Your task to perform on an android device: Clear the cart on ebay.com. Search for logitech g pro on ebay.com, select the first entry, and add it to the cart. Image 0: 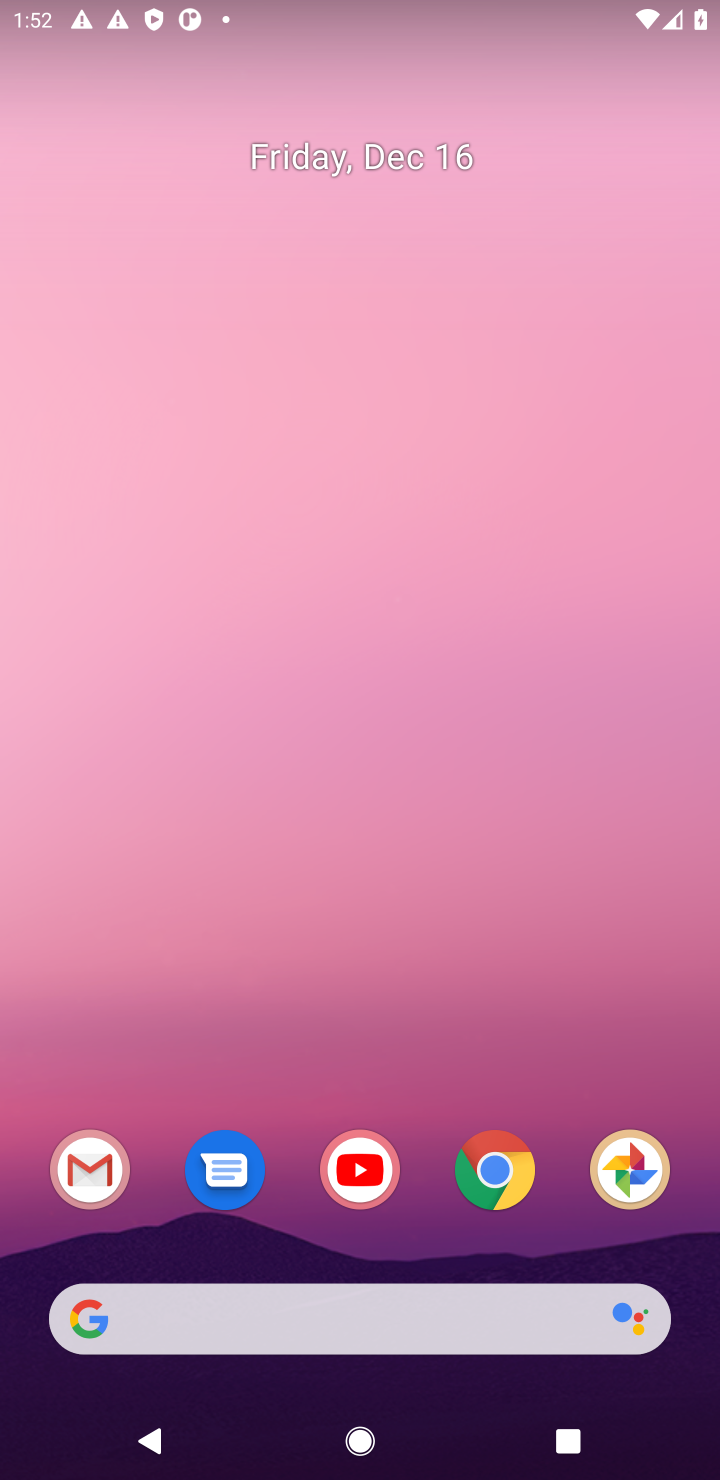
Step 0: click (499, 1163)
Your task to perform on an android device: Clear the cart on ebay.com. Search for logitech g pro on ebay.com, select the first entry, and add it to the cart. Image 1: 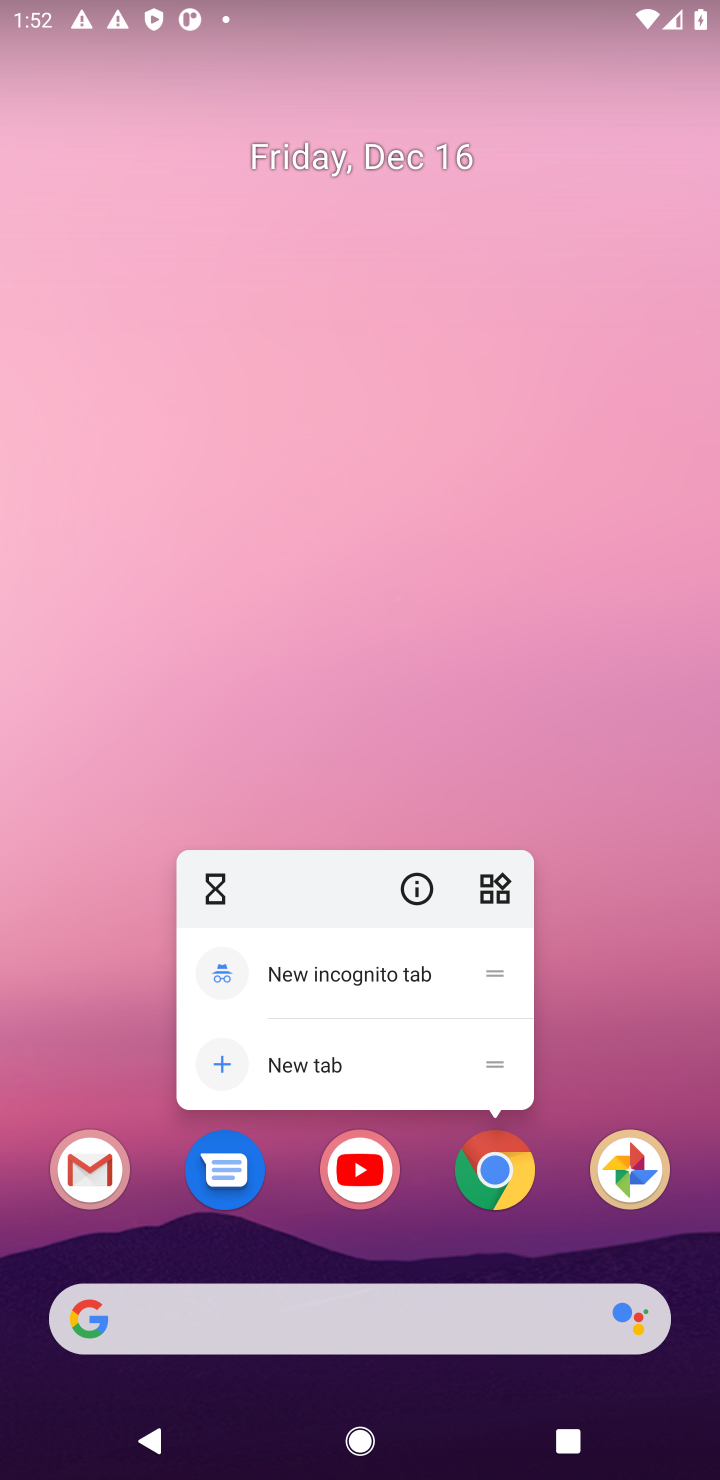
Step 1: click (499, 1181)
Your task to perform on an android device: Clear the cart on ebay.com. Search for logitech g pro on ebay.com, select the first entry, and add it to the cart. Image 2: 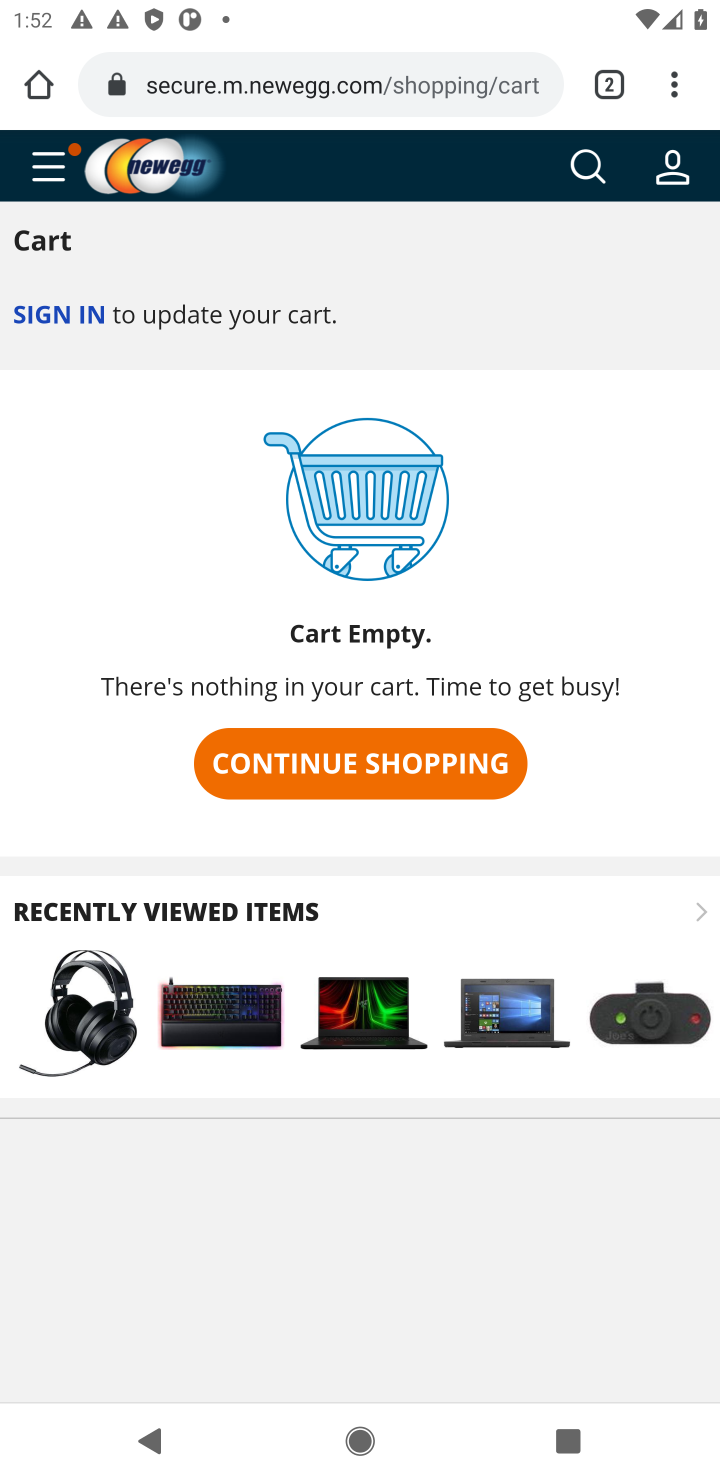
Step 2: click (227, 88)
Your task to perform on an android device: Clear the cart on ebay.com. Search for logitech g pro on ebay.com, select the first entry, and add it to the cart. Image 3: 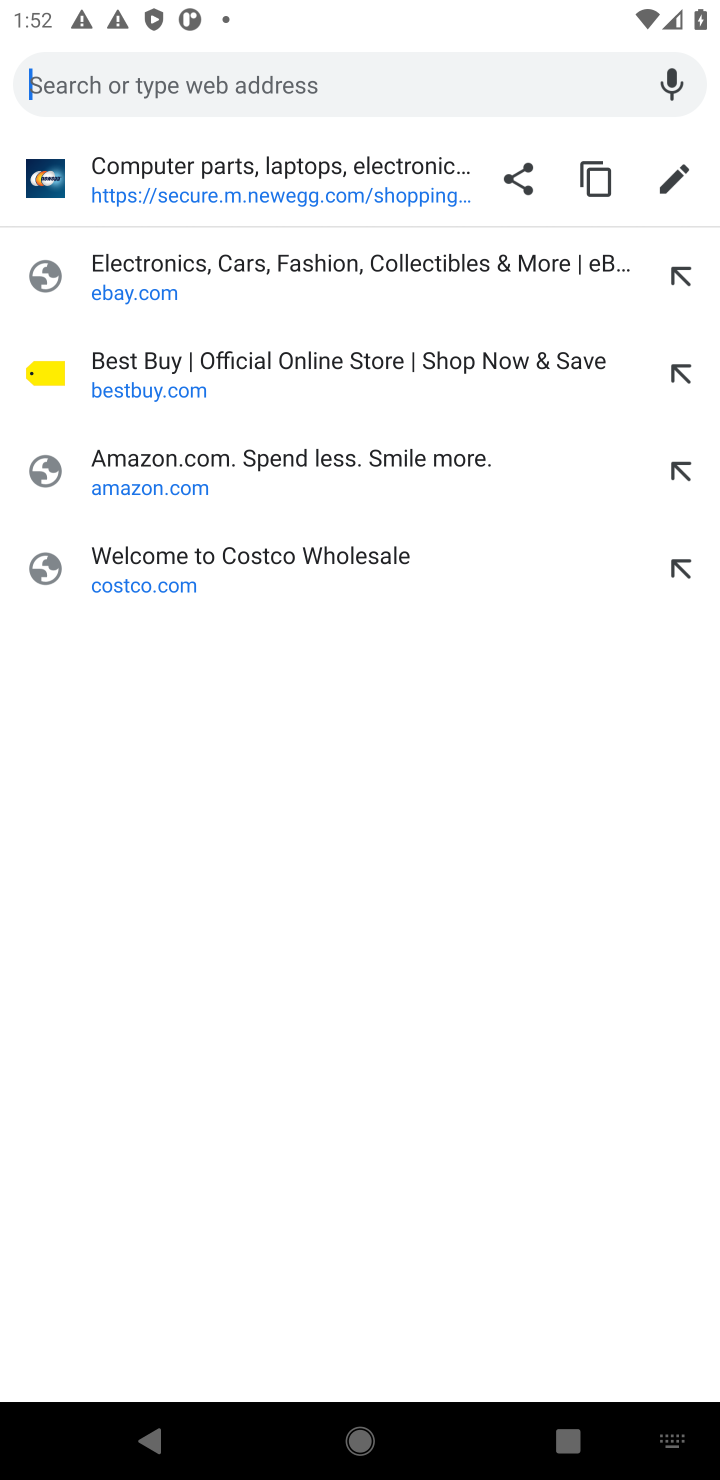
Step 3: click (116, 287)
Your task to perform on an android device: Clear the cart on ebay.com. Search for logitech g pro on ebay.com, select the first entry, and add it to the cart. Image 4: 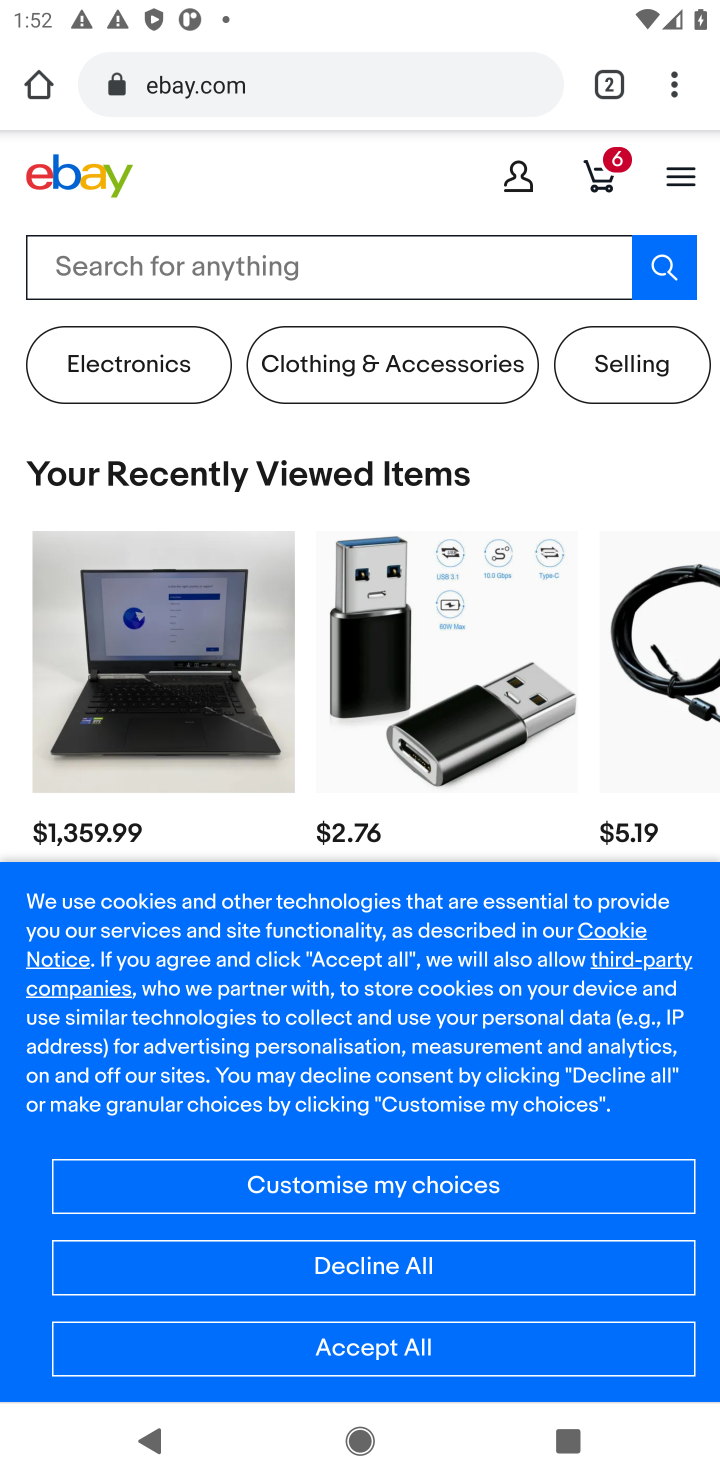
Step 4: click (597, 183)
Your task to perform on an android device: Clear the cart on ebay.com. Search for logitech g pro on ebay.com, select the first entry, and add it to the cart. Image 5: 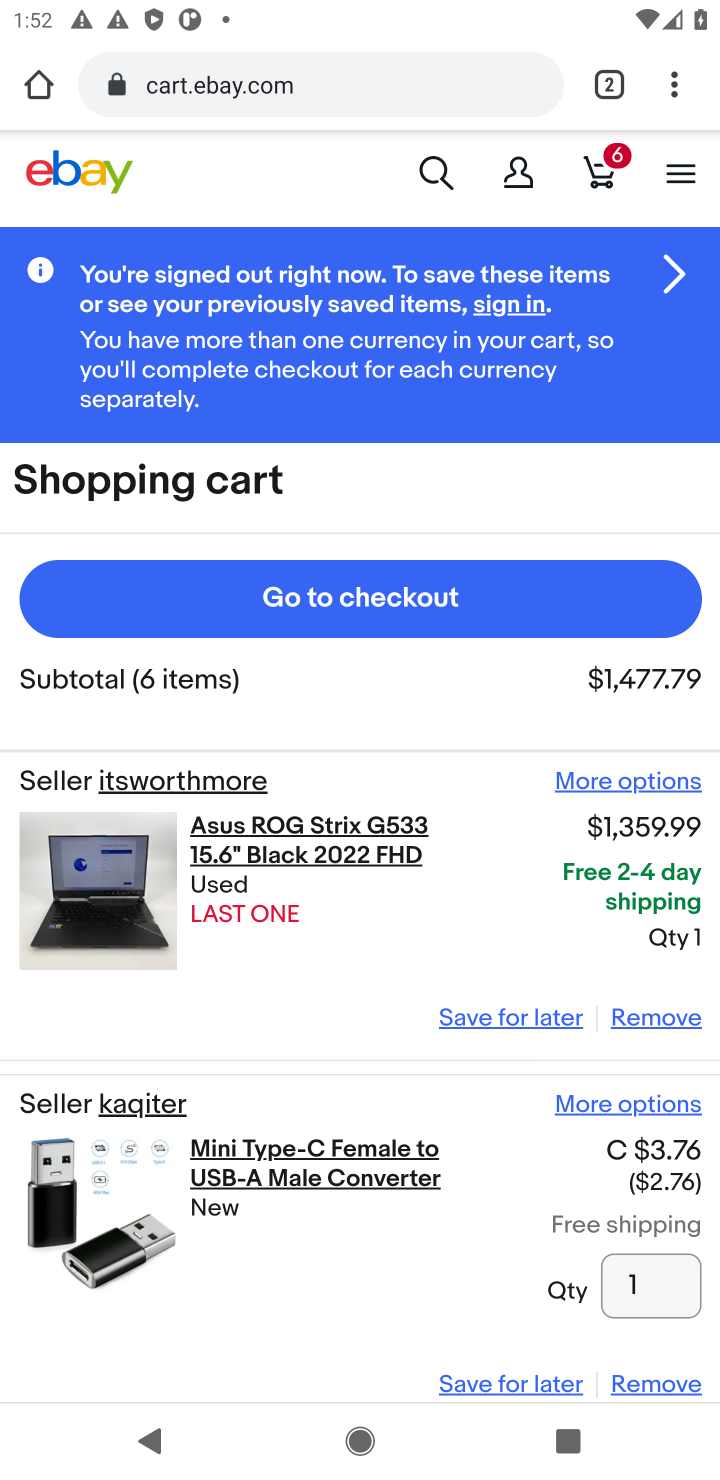
Step 5: click (652, 1020)
Your task to perform on an android device: Clear the cart on ebay.com. Search for logitech g pro on ebay.com, select the first entry, and add it to the cart. Image 6: 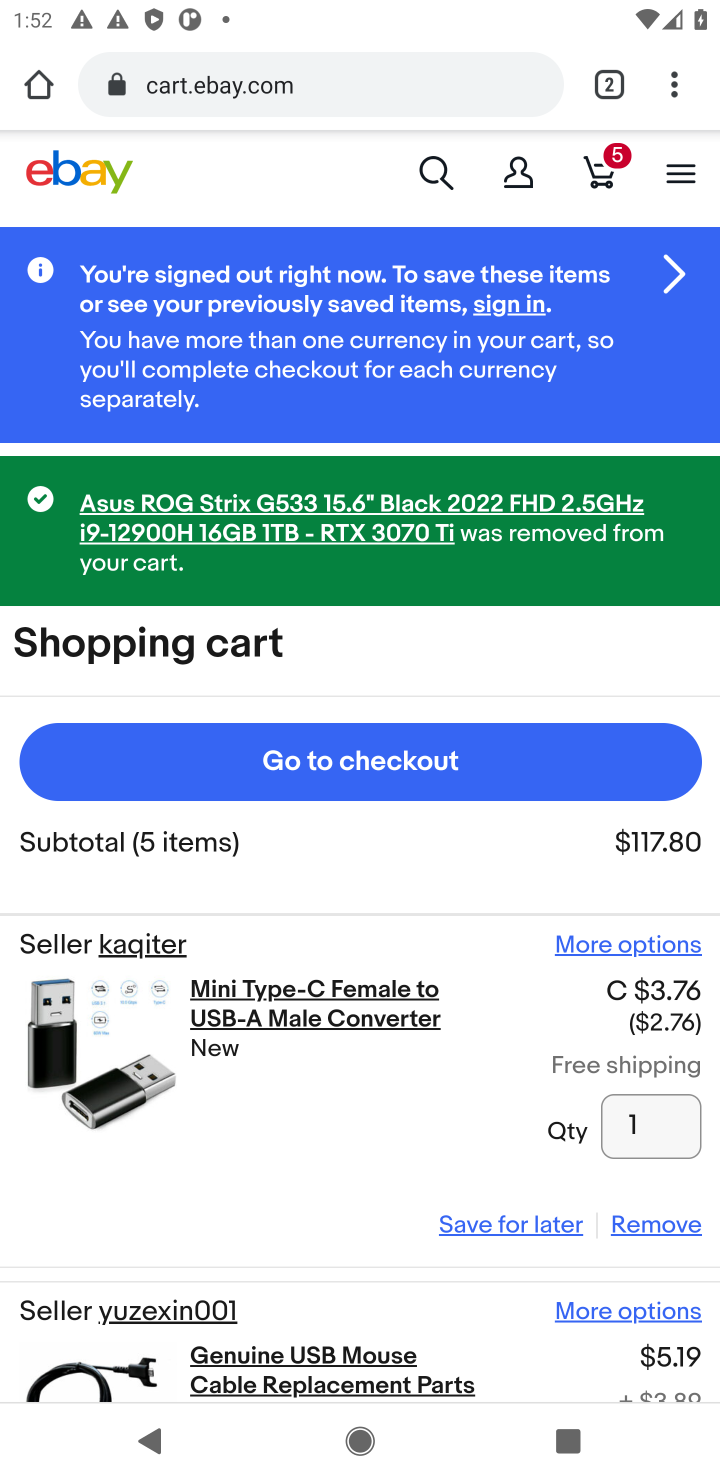
Step 6: click (647, 1223)
Your task to perform on an android device: Clear the cart on ebay.com. Search for logitech g pro on ebay.com, select the first entry, and add it to the cart. Image 7: 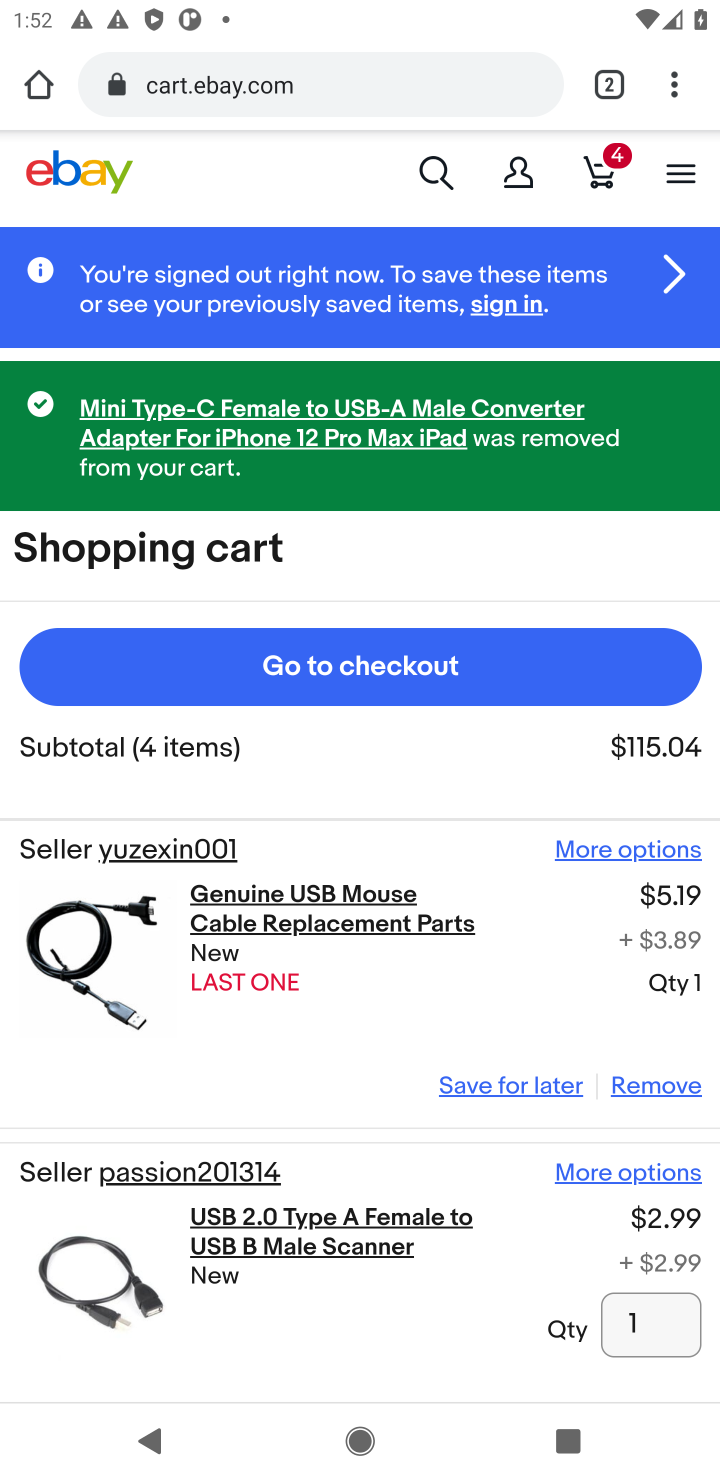
Step 7: click (653, 1091)
Your task to perform on an android device: Clear the cart on ebay.com. Search for logitech g pro on ebay.com, select the first entry, and add it to the cart. Image 8: 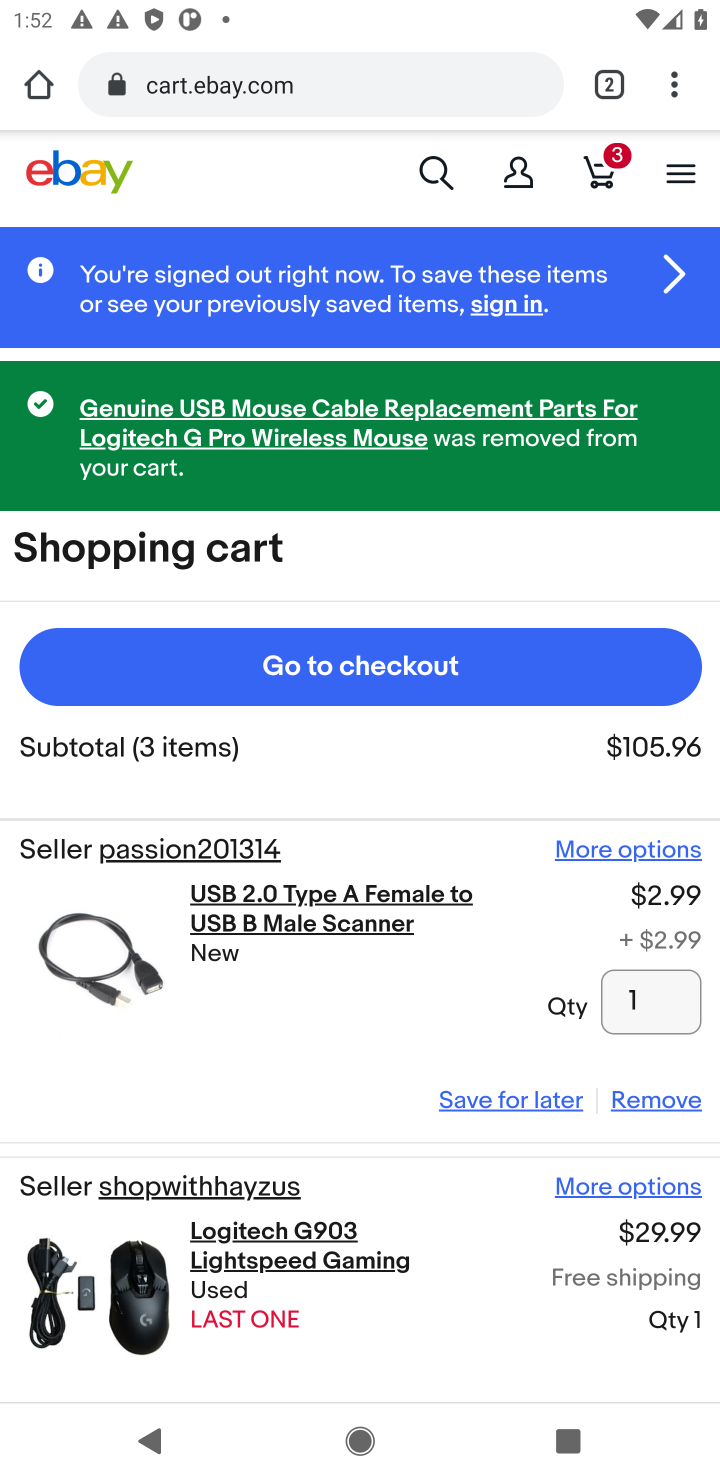
Step 8: click (650, 1098)
Your task to perform on an android device: Clear the cart on ebay.com. Search for logitech g pro on ebay.com, select the first entry, and add it to the cart. Image 9: 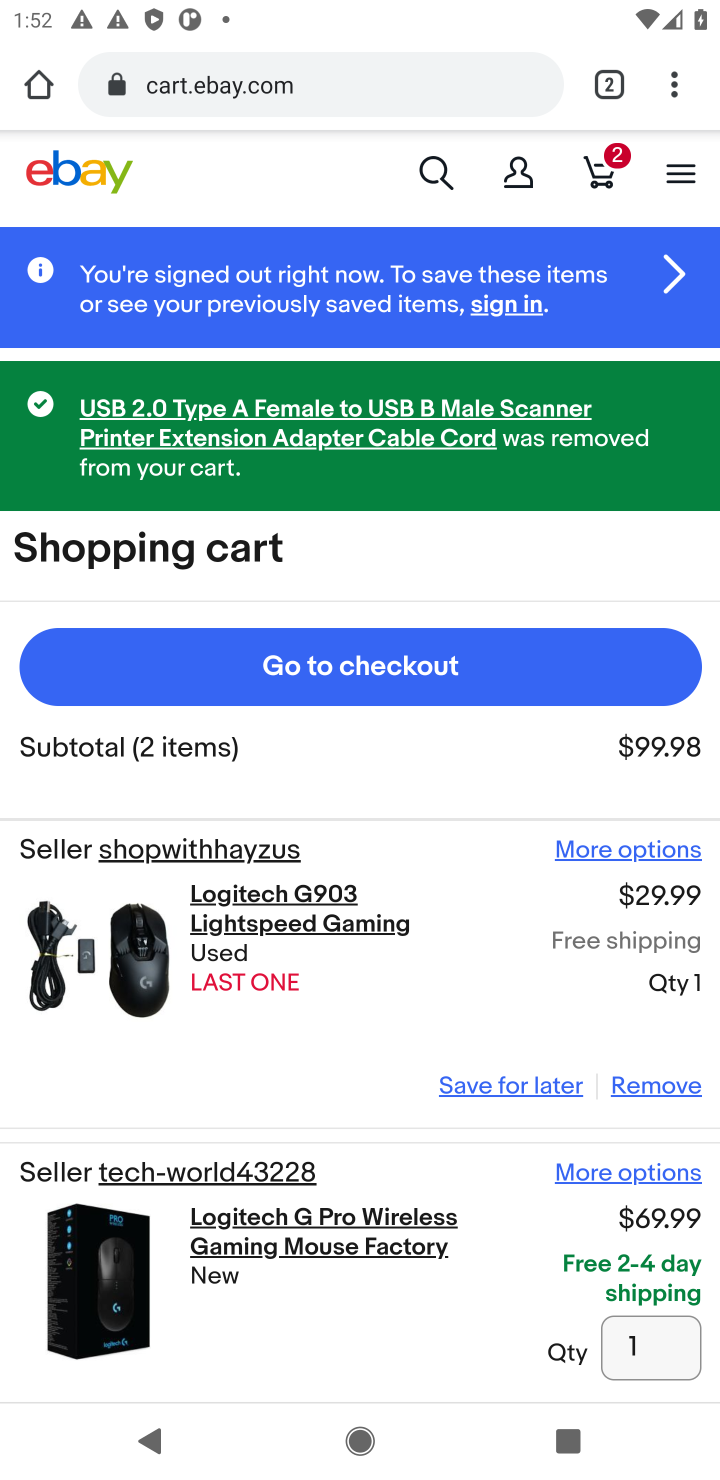
Step 9: click (656, 1092)
Your task to perform on an android device: Clear the cart on ebay.com. Search for logitech g pro on ebay.com, select the first entry, and add it to the cart. Image 10: 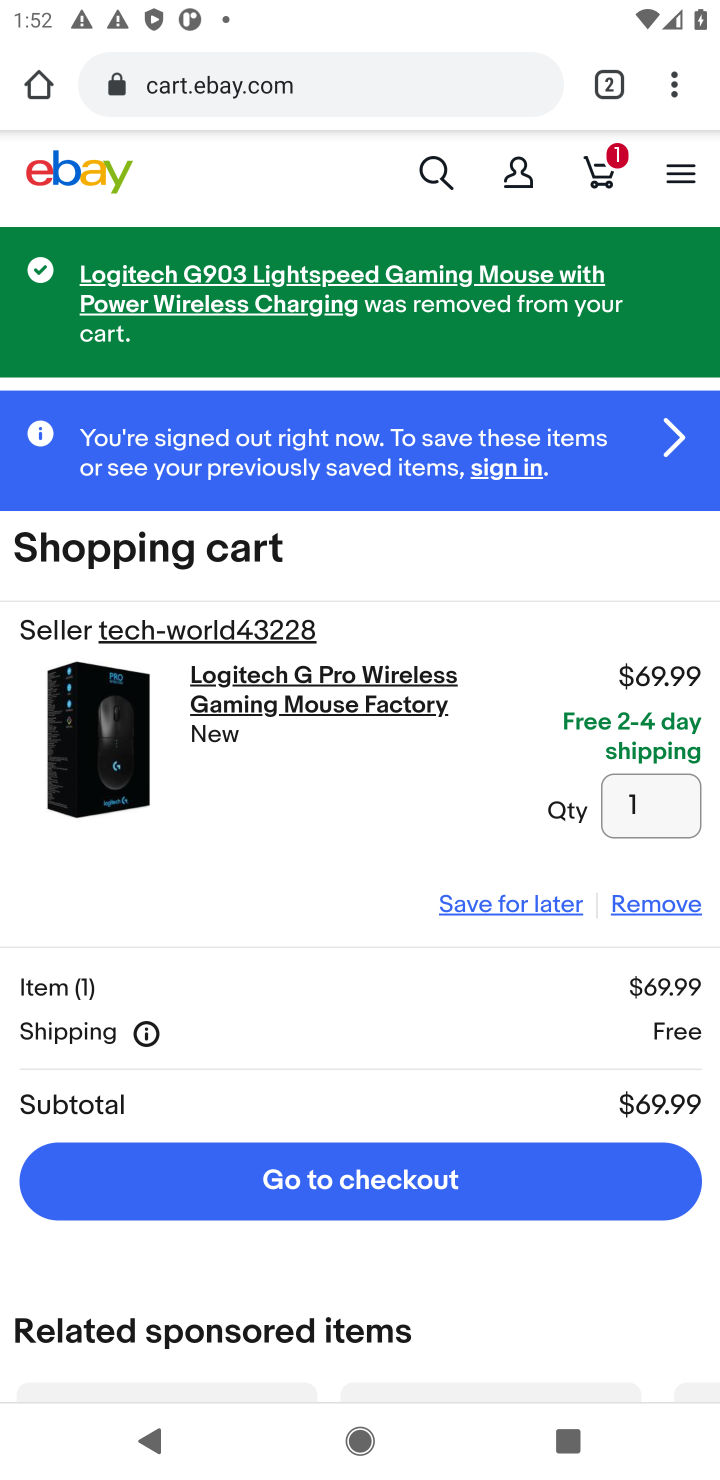
Step 10: click (645, 910)
Your task to perform on an android device: Clear the cart on ebay.com. Search for logitech g pro on ebay.com, select the first entry, and add it to the cart. Image 11: 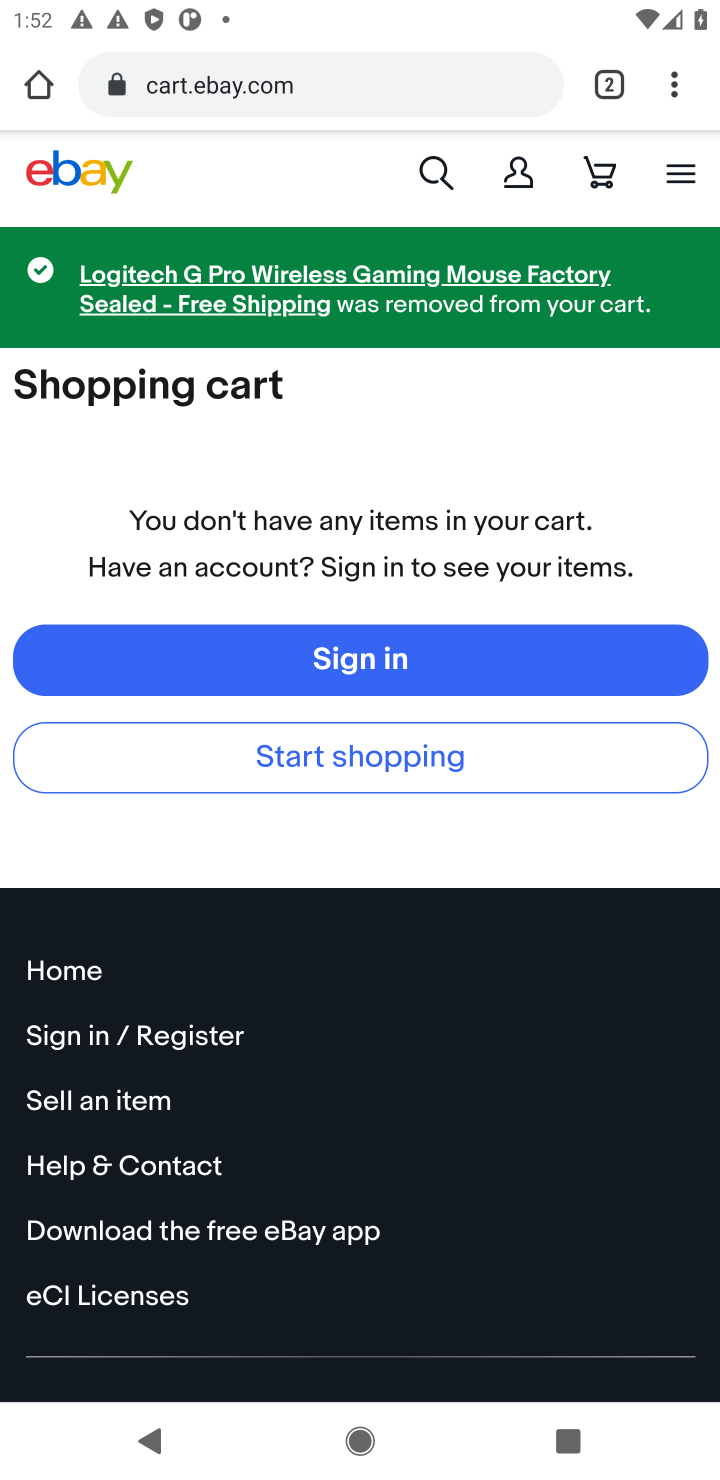
Step 11: click (437, 167)
Your task to perform on an android device: Clear the cart on ebay.com. Search for logitech g pro on ebay.com, select the first entry, and add it to the cart. Image 12: 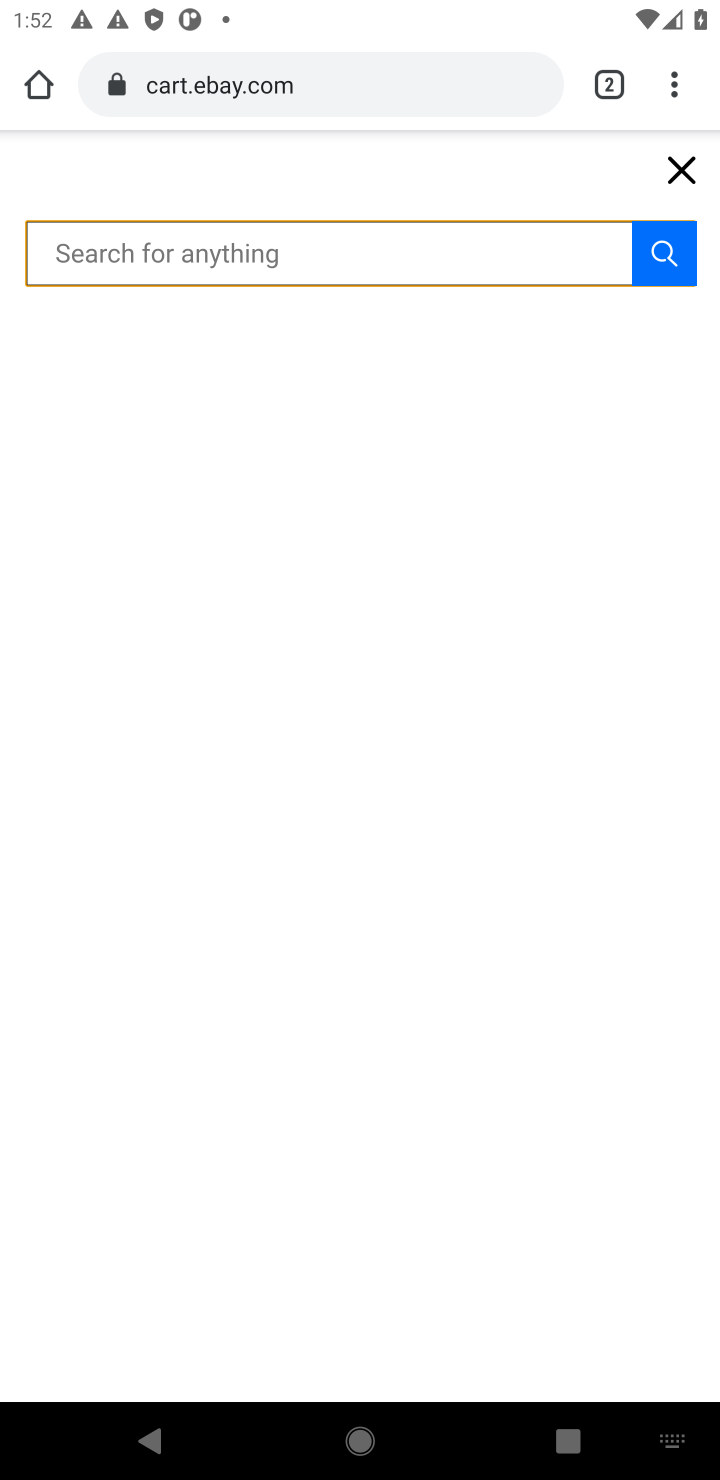
Step 12: type "logitech g pro"
Your task to perform on an android device: Clear the cart on ebay.com. Search for logitech g pro on ebay.com, select the first entry, and add it to the cart. Image 13: 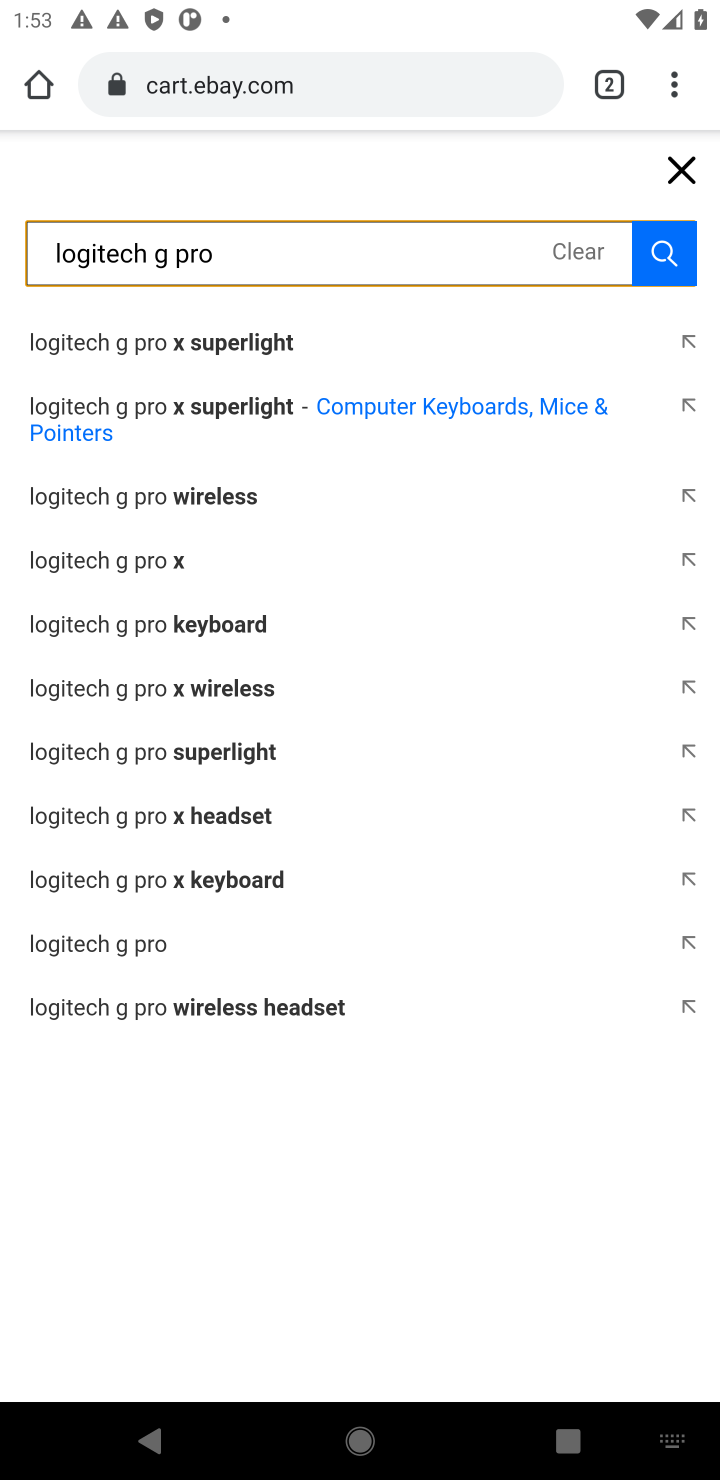
Step 13: click (89, 945)
Your task to perform on an android device: Clear the cart on ebay.com. Search for logitech g pro on ebay.com, select the first entry, and add it to the cart. Image 14: 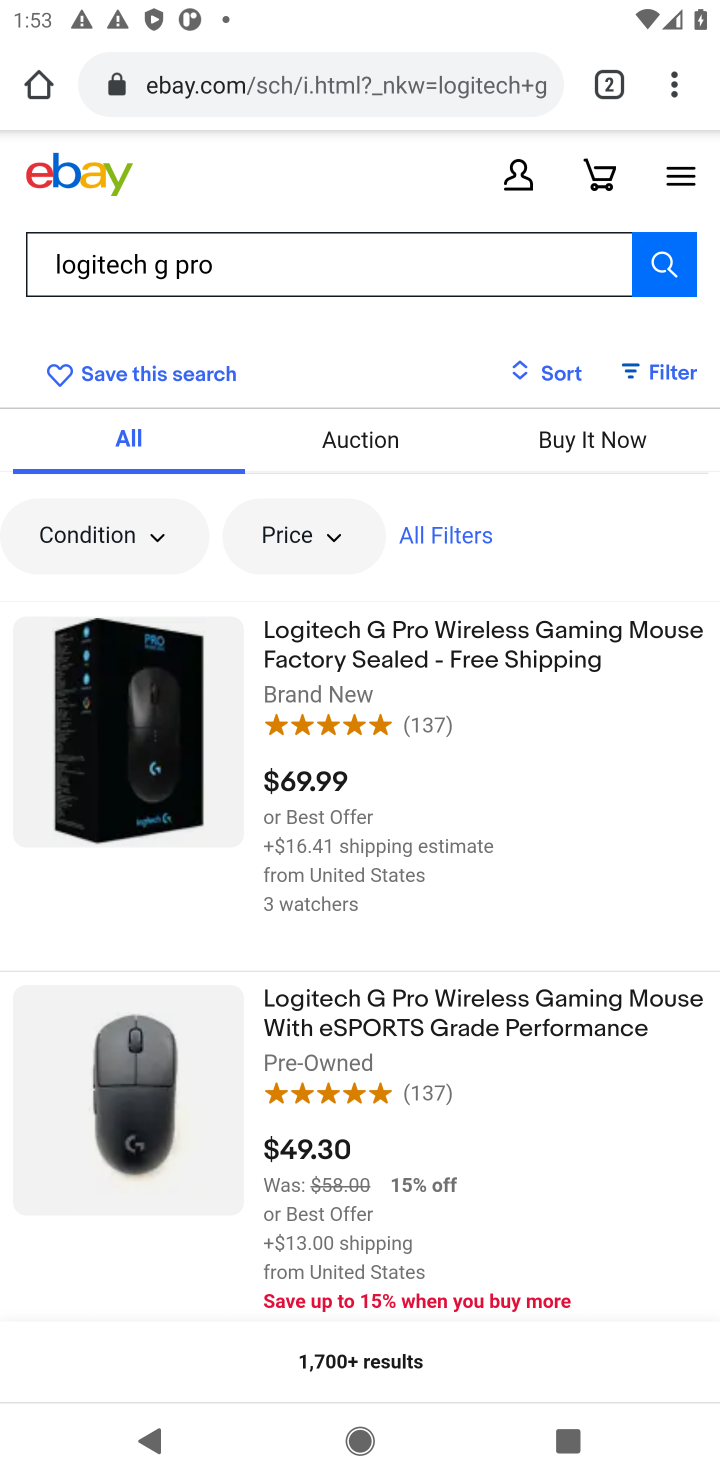
Step 14: click (309, 646)
Your task to perform on an android device: Clear the cart on ebay.com. Search for logitech g pro on ebay.com, select the first entry, and add it to the cart. Image 15: 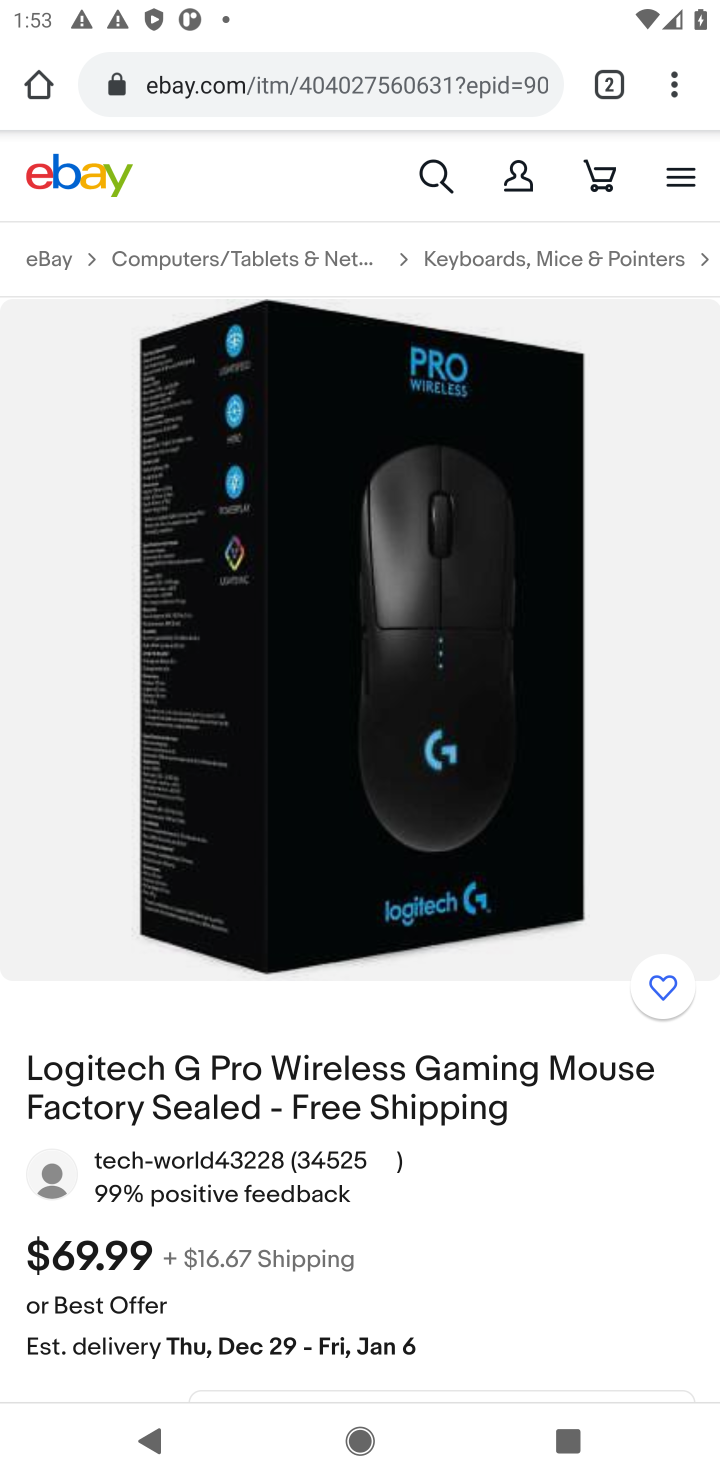
Step 15: drag from (345, 1029) to (334, 602)
Your task to perform on an android device: Clear the cart on ebay.com. Search for logitech g pro on ebay.com, select the first entry, and add it to the cart. Image 16: 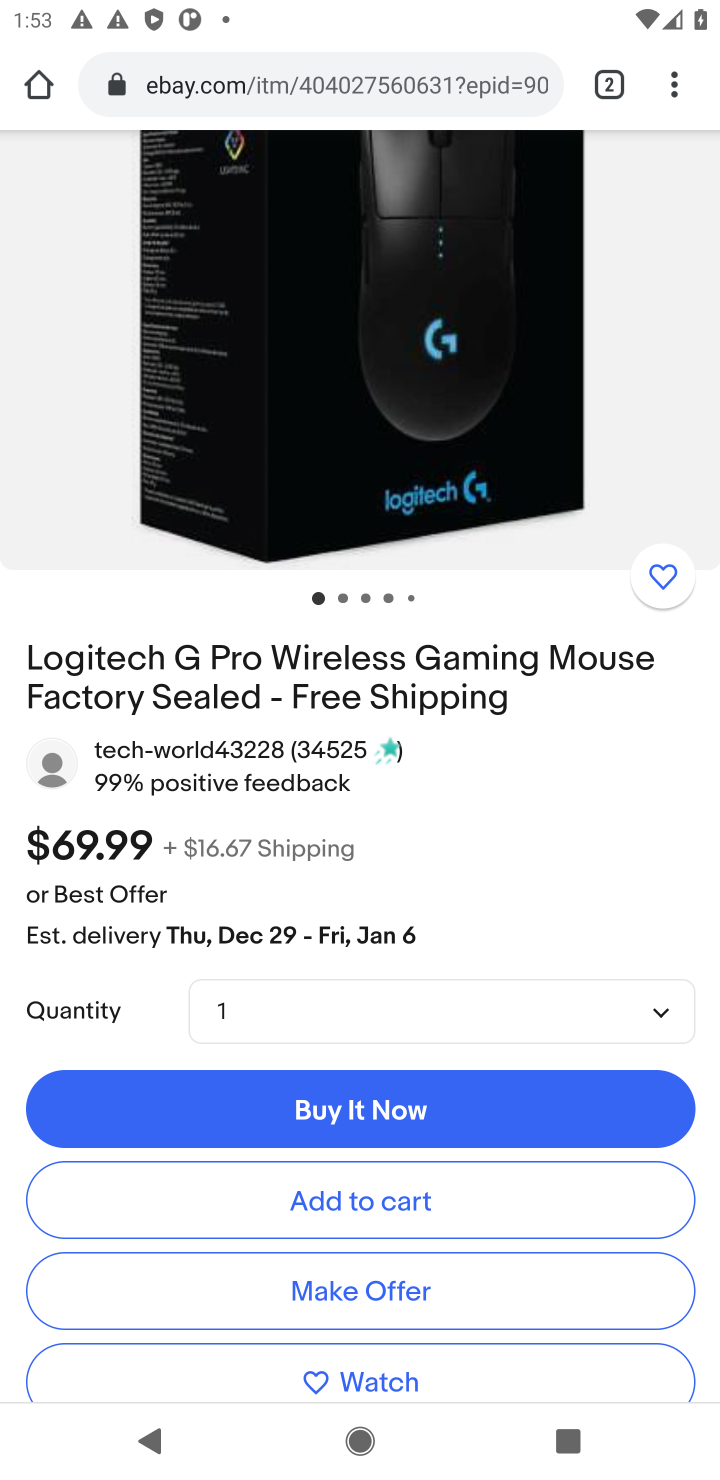
Step 16: click (318, 1191)
Your task to perform on an android device: Clear the cart on ebay.com. Search for logitech g pro on ebay.com, select the first entry, and add it to the cart. Image 17: 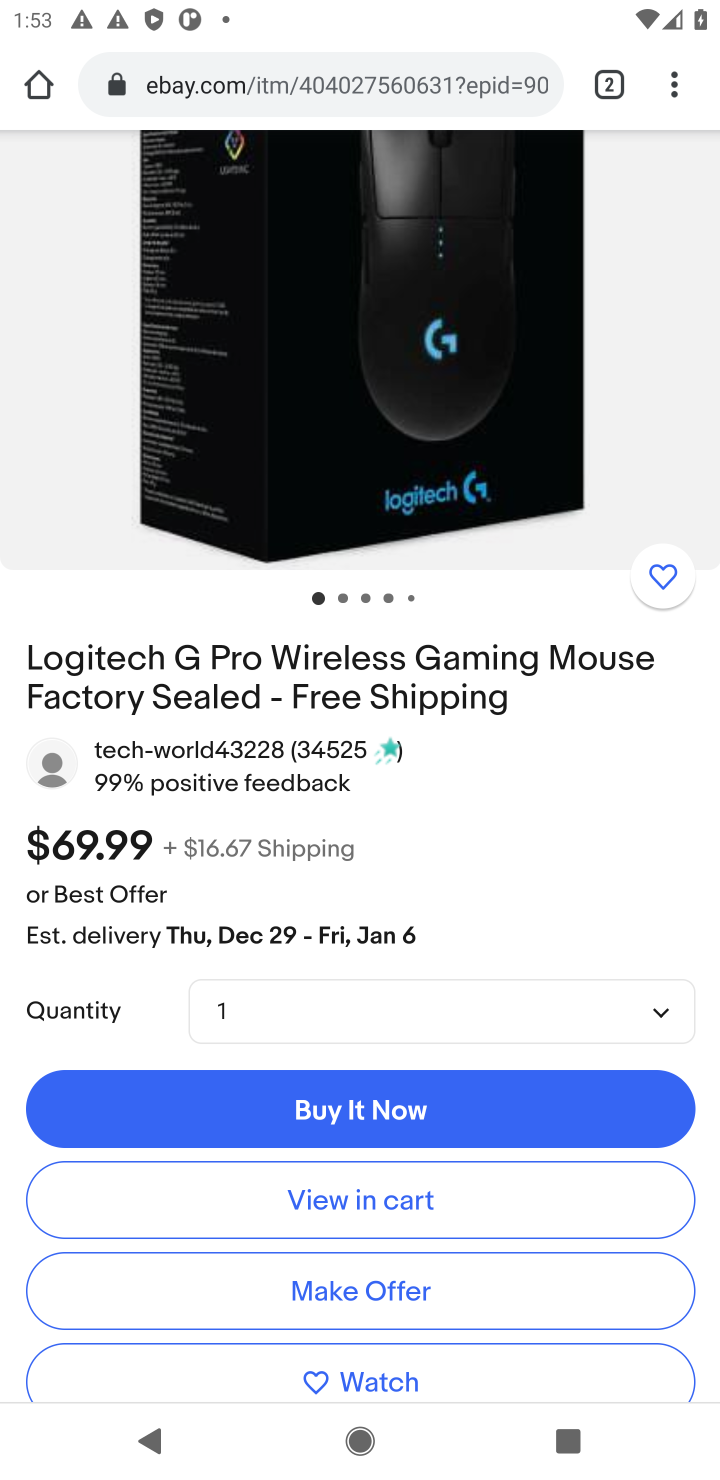
Step 17: task complete